Your task to perform on an android device: check google app version Image 0: 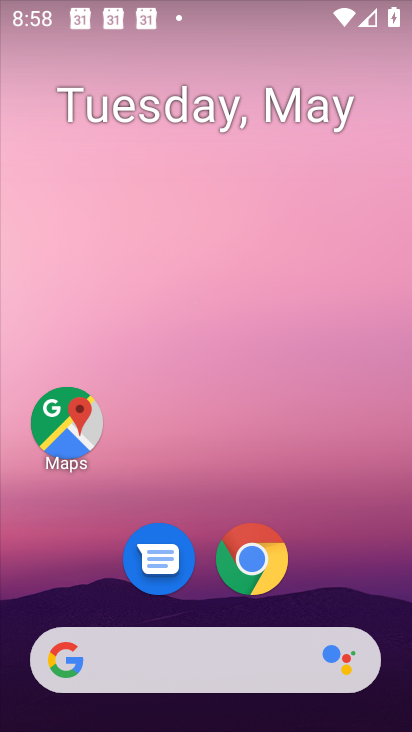
Step 0: drag from (336, 551) to (295, 28)
Your task to perform on an android device: check google app version Image 1: 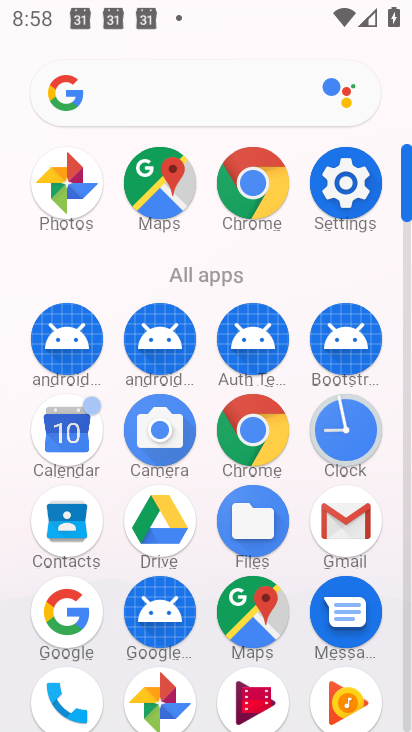
Step 1: click (64, 606)
Your task to perform on an android device: check google app version Image 2: 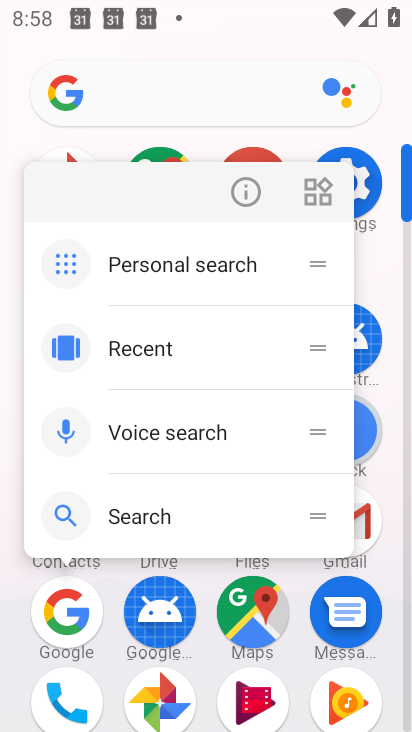
Step 2: click (244, 187)
Your task to perform on an android device: check google app version Image 3: 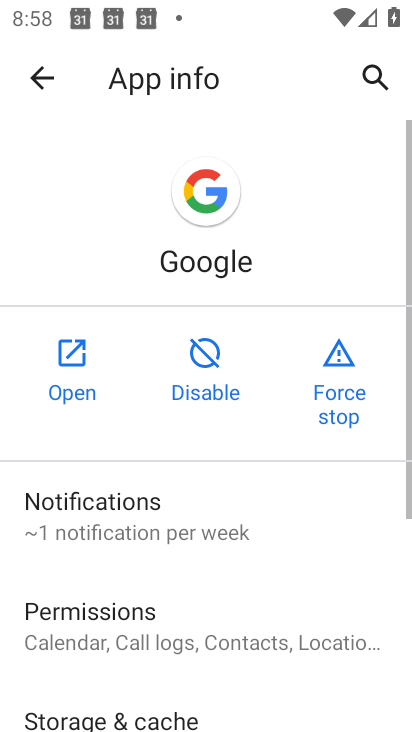
Step 3: drag from (211, 560) to (273, 373)
Your task to perform on an android device: check google app version Image 4: 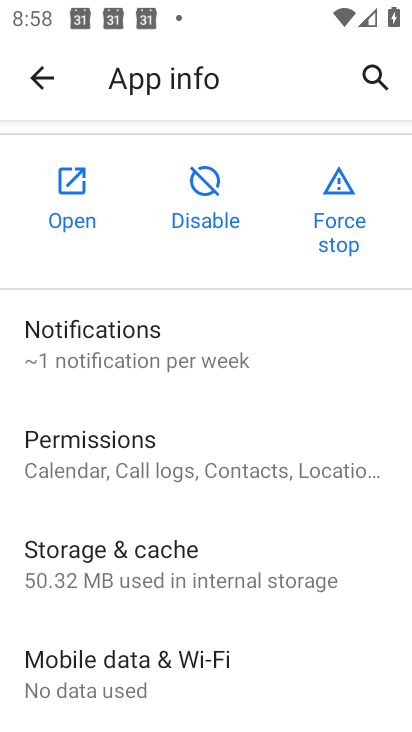
Step 4: drag from (172, 606) to (244, 488)
Your task to perform on an android device: check google app version Image 5: 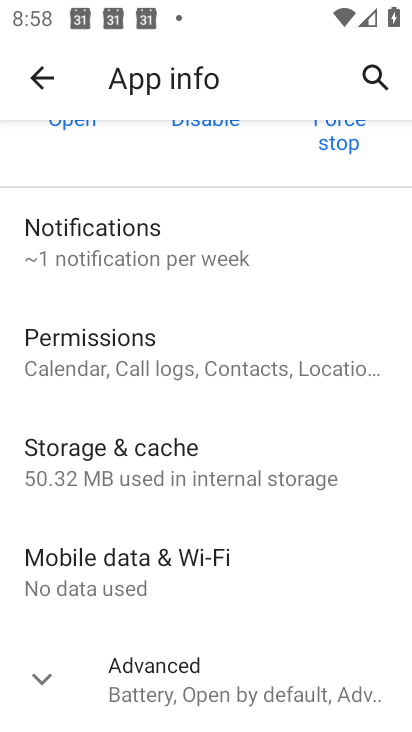
Step 5: click (196, 689)
Your task to perform on an android device: check google app version Image 6: 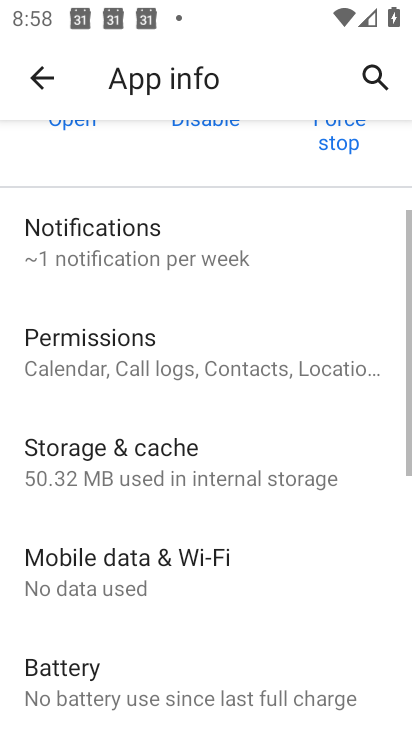
Step 6: task complete